Your task to perform on an android device: toggle notifications settings in the gmail app Image 0: 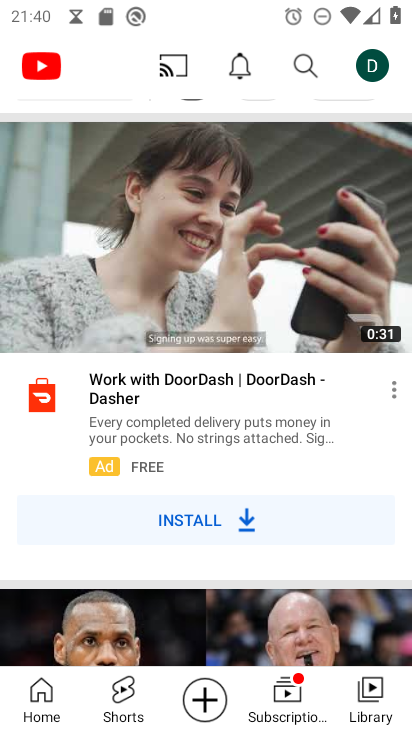
Step 0: press home button
Your task to perform on an android device: toggle notifications settings in the gmail app Image 1: 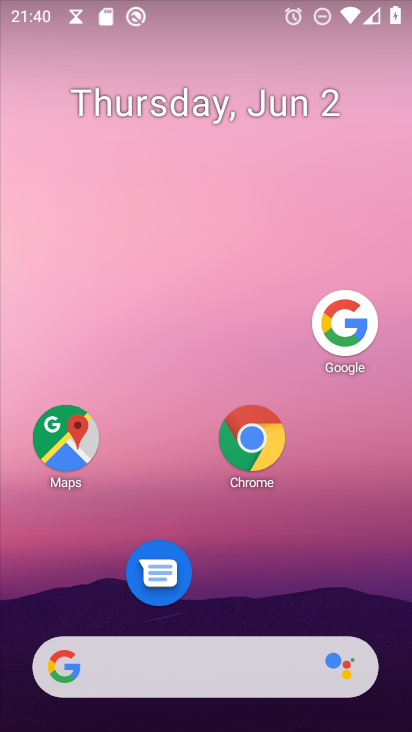
Step 1: drag from (178, 647) to (304, 150)
Your task to perform on an android device: toggle notifications settings in the gmail app Image 2: 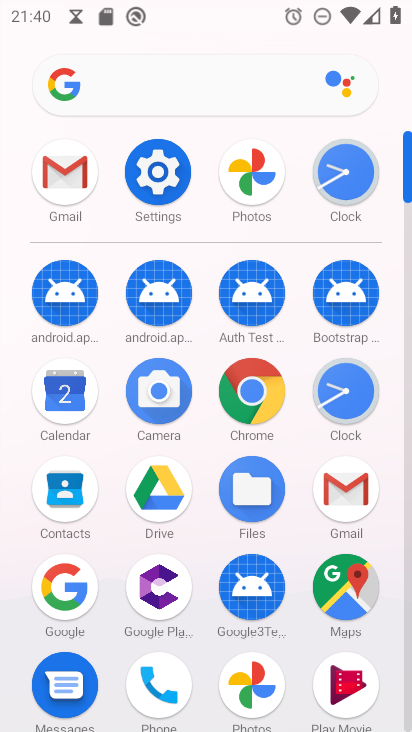
Step 2: click (65, 193)
Your task to perform on an android device: toggle notifications settings in the gmail app Image 3: 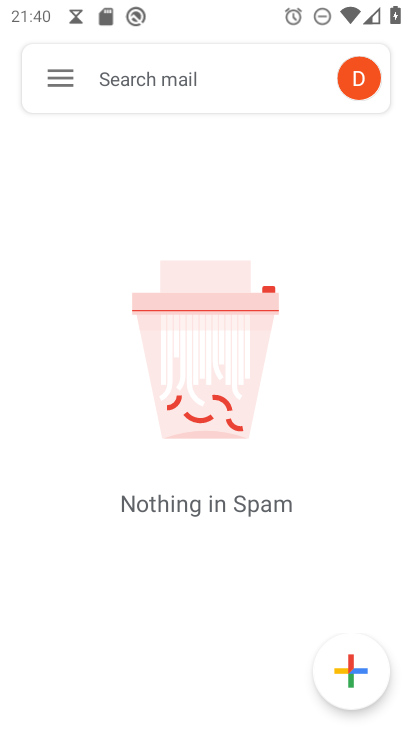
Step 3: click (60, 71)
Your task to perform on an android device: toggle notifications settings in the gmail app Image 4: 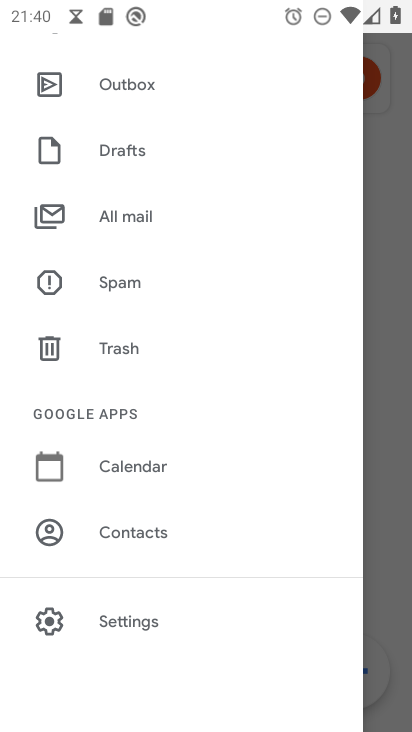
Step 4: click (134, 625)
Your task to perform on an android device: toggle notifications settings in the gmail app Image 5: 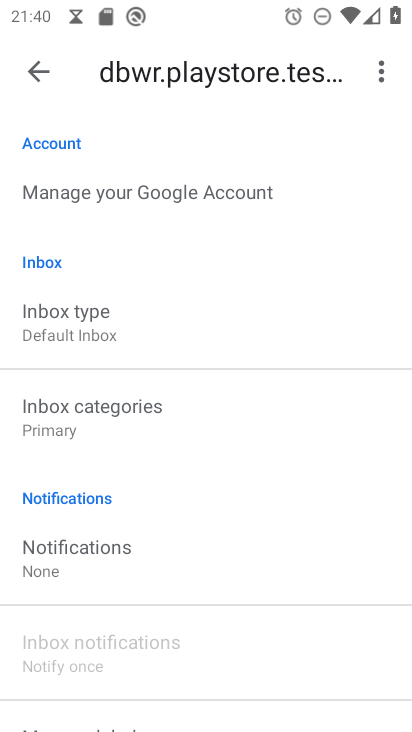
Step 5: click (80, 560)
Your task to perform on an android device: toggle notifications settings in the gmail app Image 6: 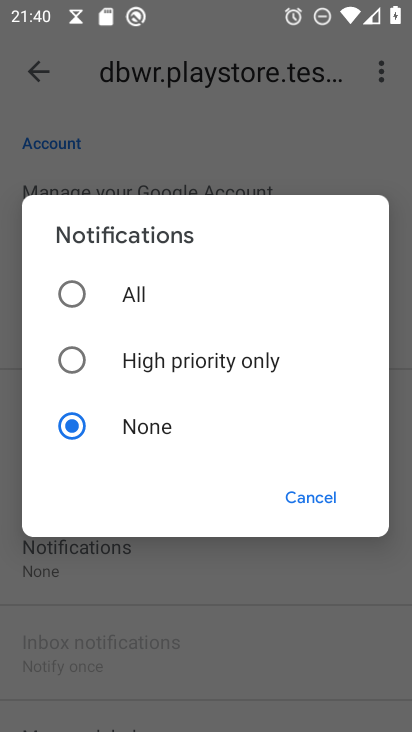
Step 6: click (72, 295)
Your task to perform on an android device: toggle notifications settings in the gmail app Image 7: 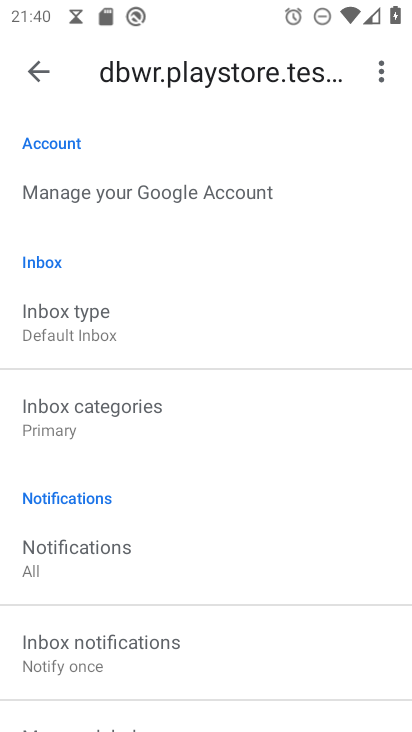
Step 7: task complete